Your task to perform on an android device: open a new tab in the chrome app Image 0: 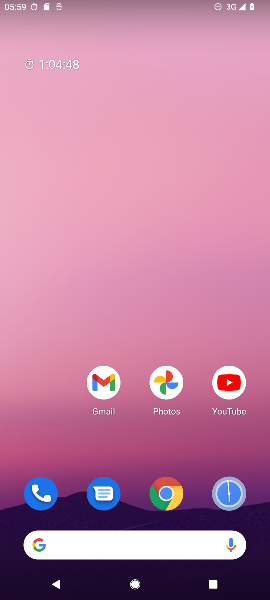
Step 0: press home button
Your task to perform on an android device: open a new tab in the chrome app Image 1: 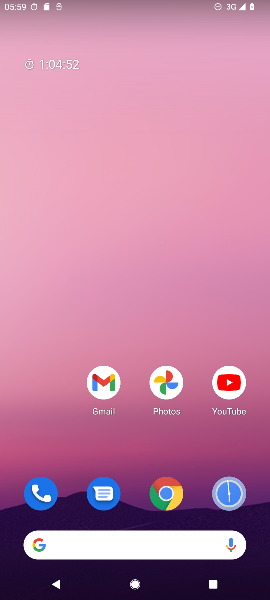
Step 1: drag from (70, 467) to (74, 211)
Your task to perform on an android device: open a new tab in the chrome app Image 2: 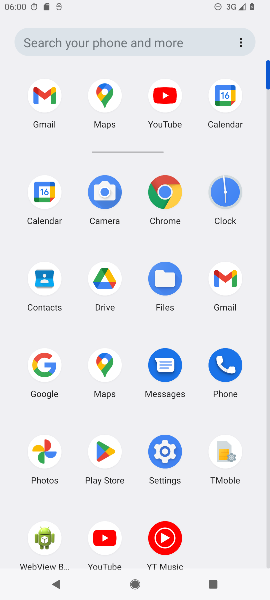
Step 2: click (167, 190)
Your task to perform on an android device: open a new tab in the chrome app Image 3: 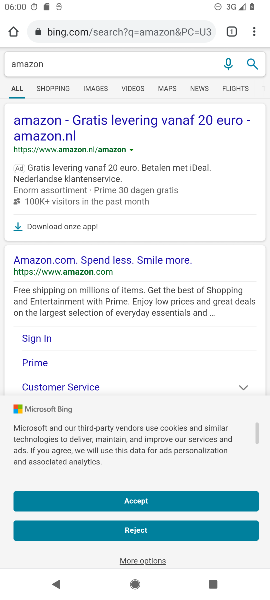
Step 3: click (254, 32)
Your task to perform on an android device: open a new tab in the chrome app Image 4: 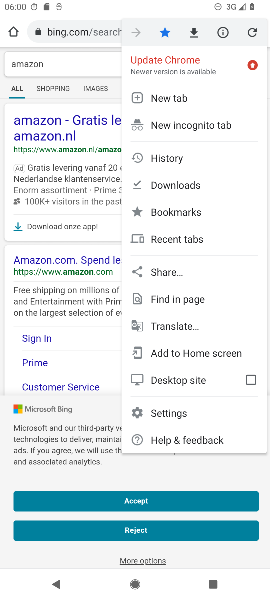
Step 4: click (172, 97)
Your task to perform on an android device: open a new tab in the chrome app Image 5: 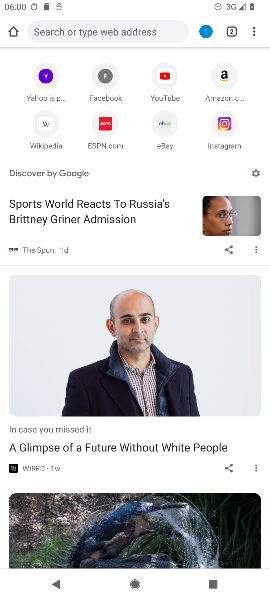
Step 5: task complete